Your task to perform on an android device: delete a single message in the gmail app Image 0: 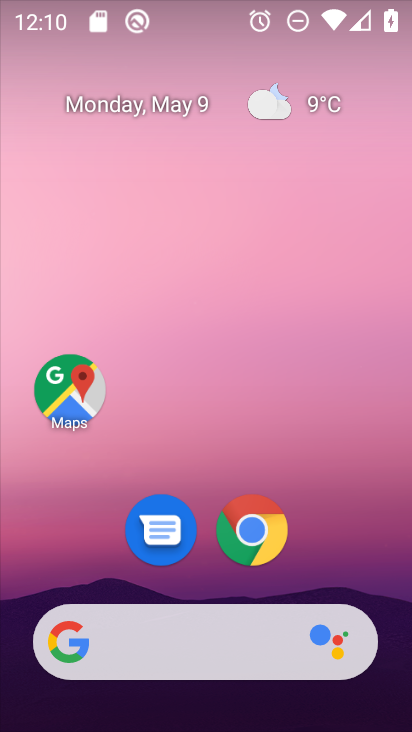
Step 0: drag from (194, 565) to (326, 62)
Your task to perform on an android device: delete a single message in the gmail app Image 1: 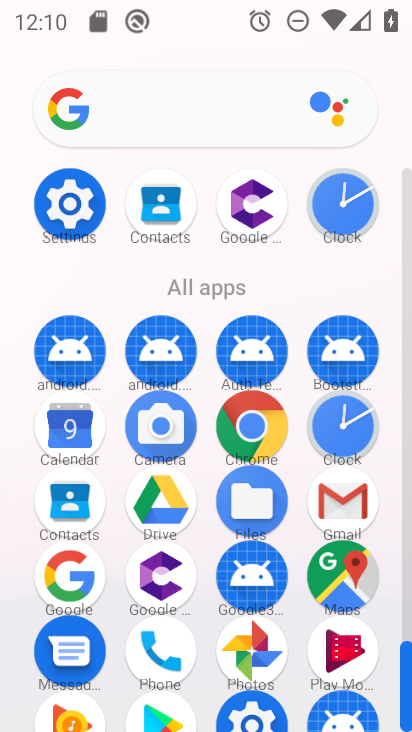
Step 1: click (348, 515)
Your task to perform on an android device: delete a single message in the gmail app Image 2: 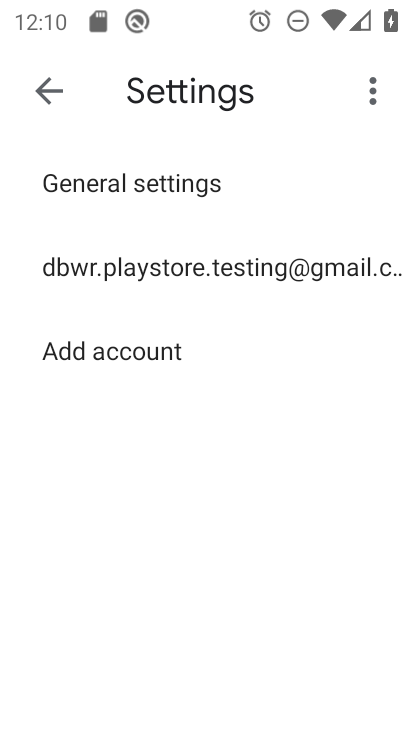
Step 2: click (77, 112)
Your task to perform on an android device: delete a single message in the gmail app Image 3: 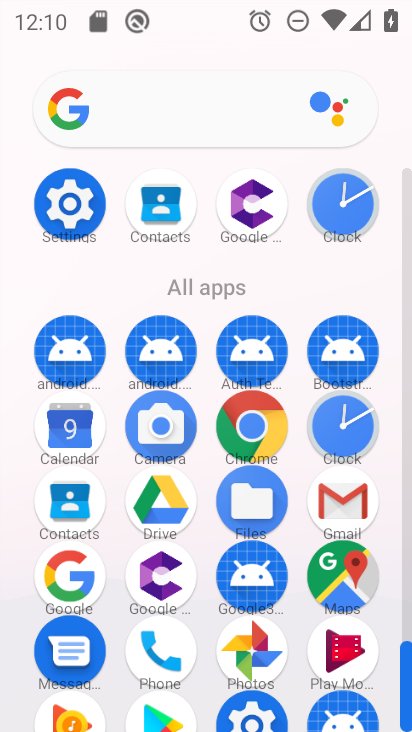
Step 3: click (336, 515)
Your task to perform on an android device: delete a single message in the gmail app Image 4: 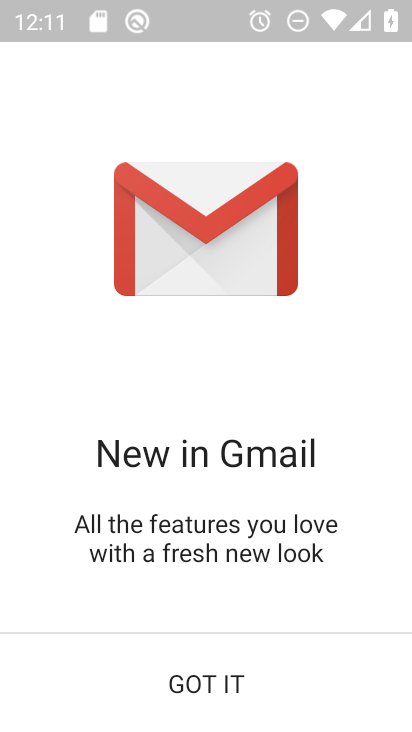
Step 4: click (114, 661)
Your task to perform on an android device: delete a single message in the gmail app Image 5: 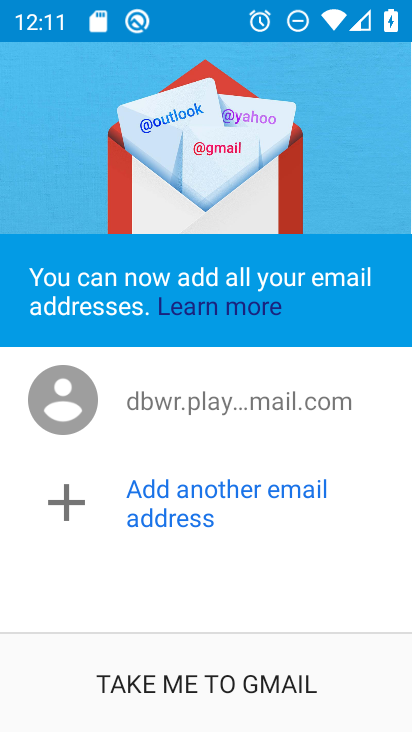
Step 5: click (154, 694)
Your task to perform on an android device: delete a single message in the gmail app Image 6: 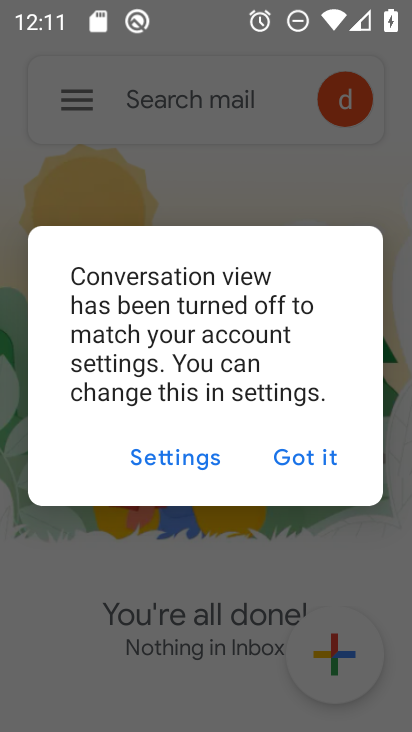
Step 6: click (320, 457)
Your task to perform on an android device: delete a single message in the gmail app Image 7: 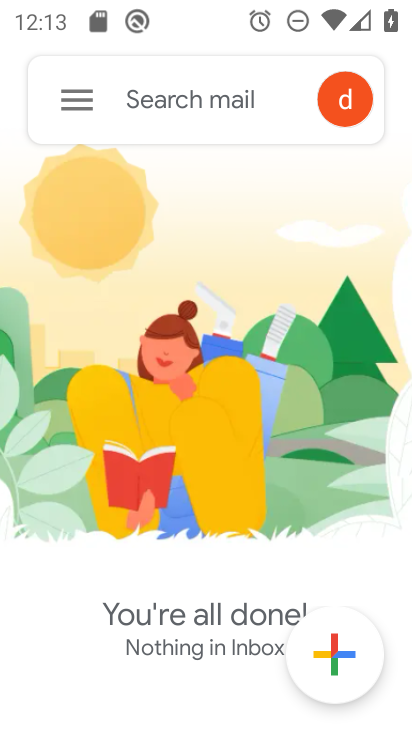
Step 7: task complete